Your task to perform on an android device: Open location settings Image 0: 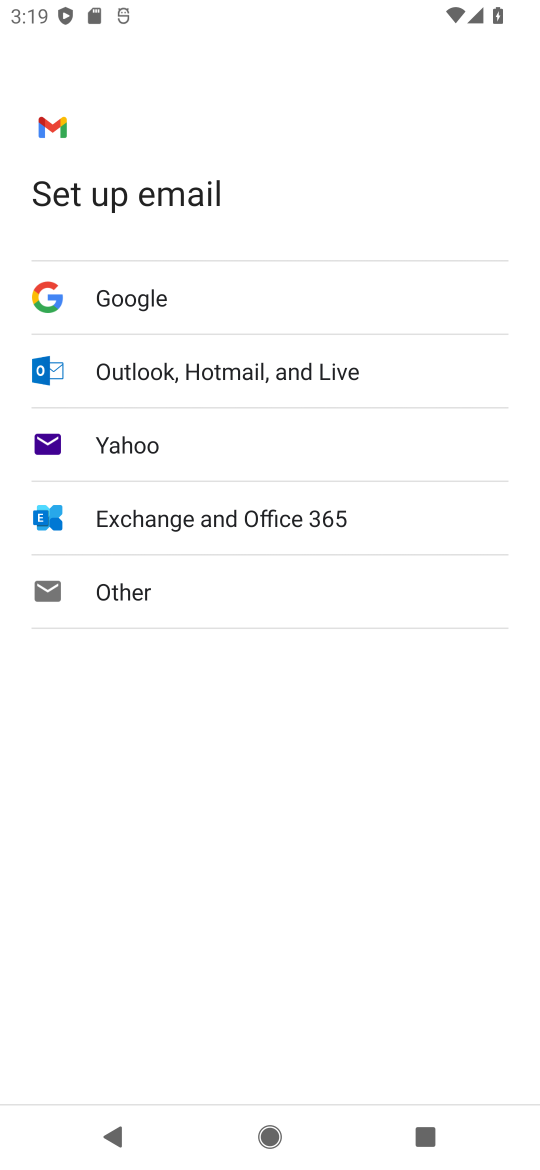
Step 0: press home button
Your task to perform on an android device: Open location settings Image 1: 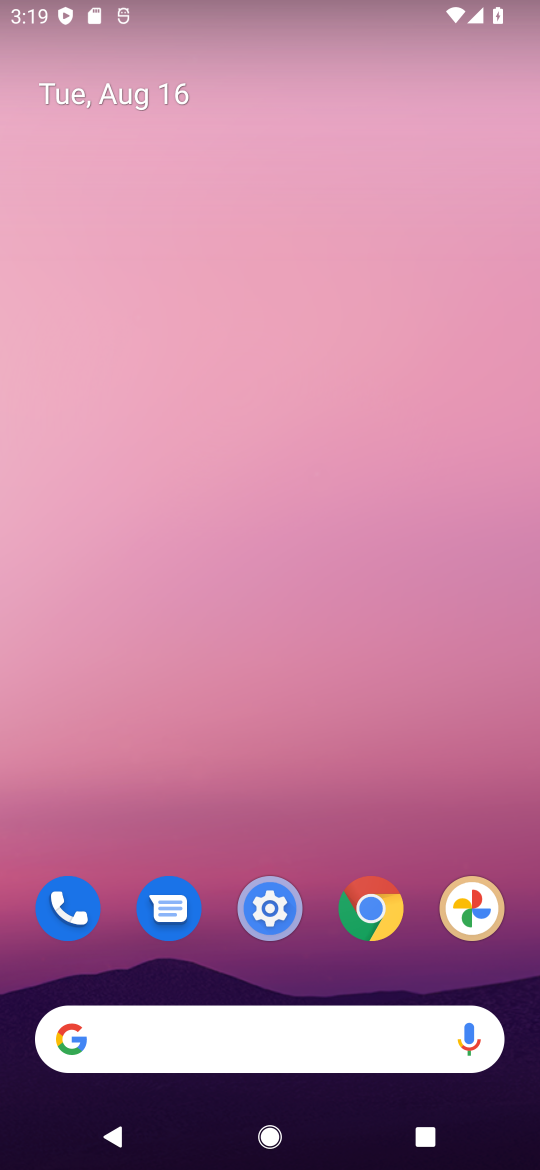
Step 1: drag from (309, 864) to (311, 195)
Your task to perform on an android device: Open location settings Image 2: 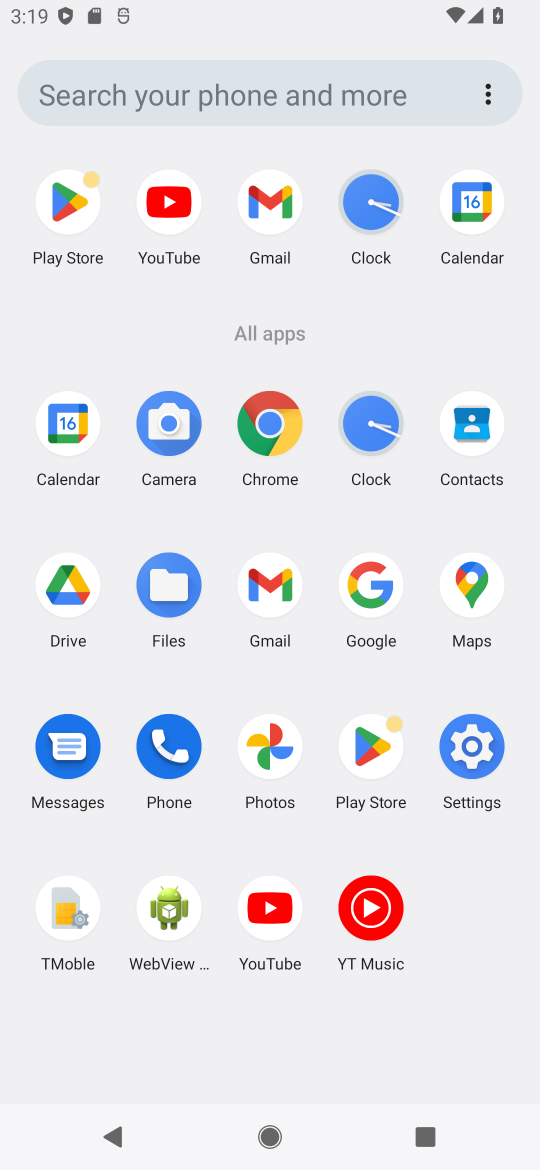
Step 2: click (467, 740)
Your task to perform on an android device: Open location settings Image 3: 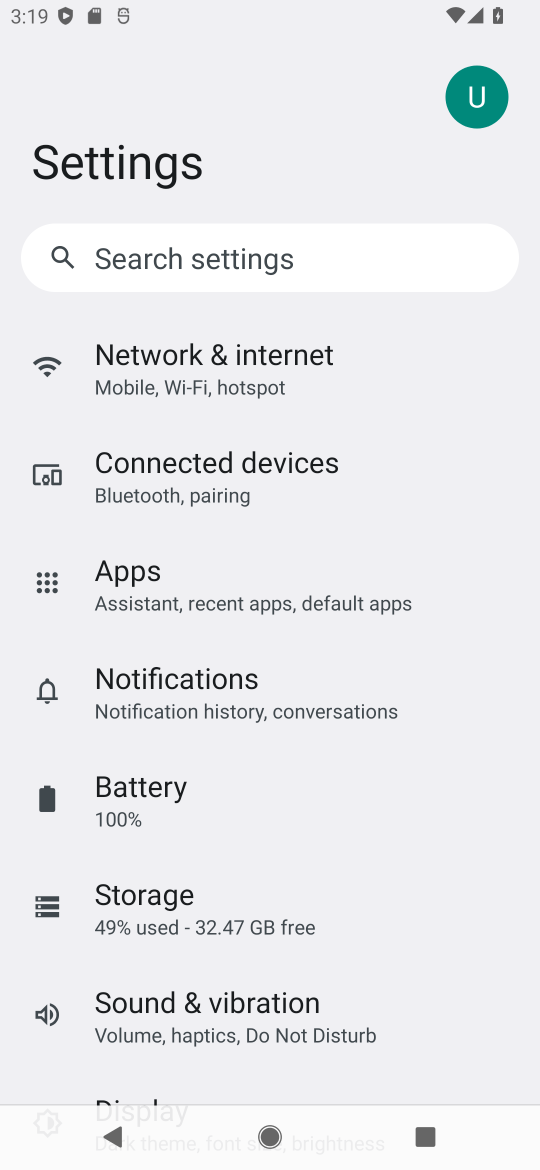
Step 3: drag from (296, 982) to (291, 173)
Your task to perform on an android device: Open location settings Image 4: 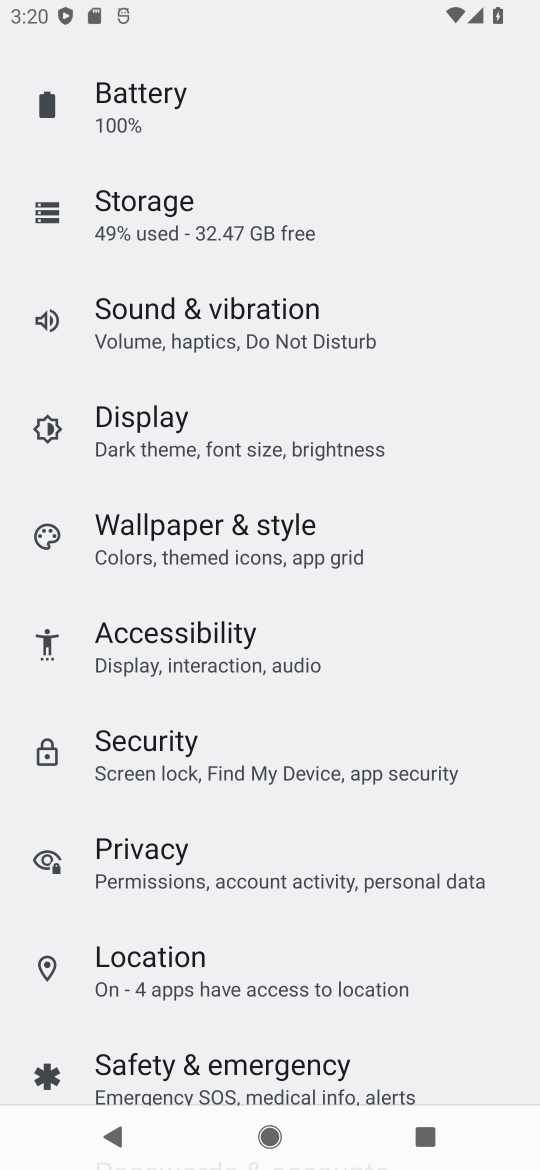
Step 4: click (227, 956)
Your task to perform on an android device: Open location settings Image 5: 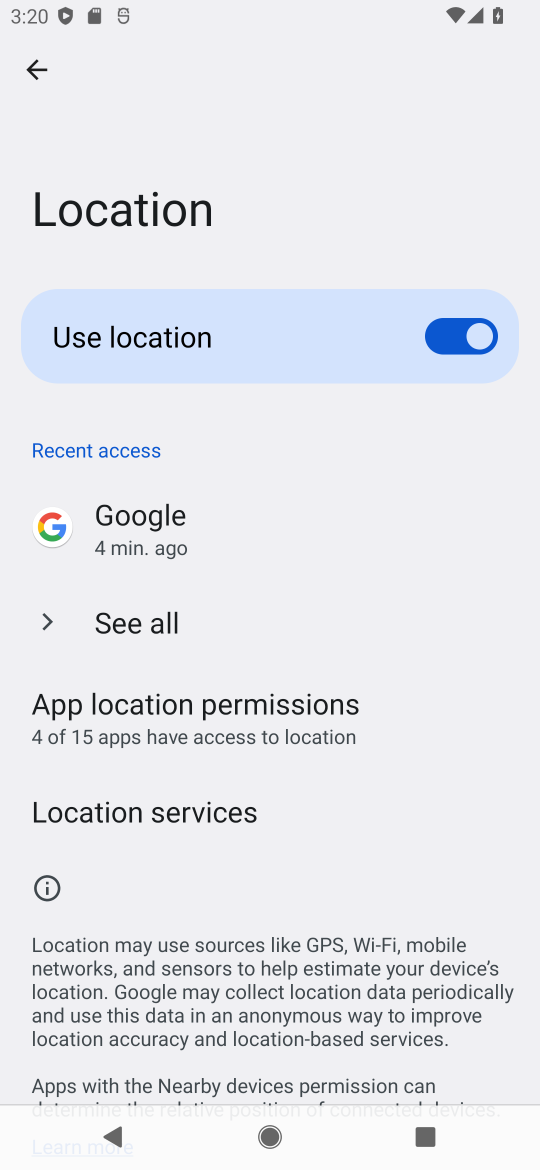
Step 5: click (112, 798)
Your task to perform on an android device: Open location settings Image 6: 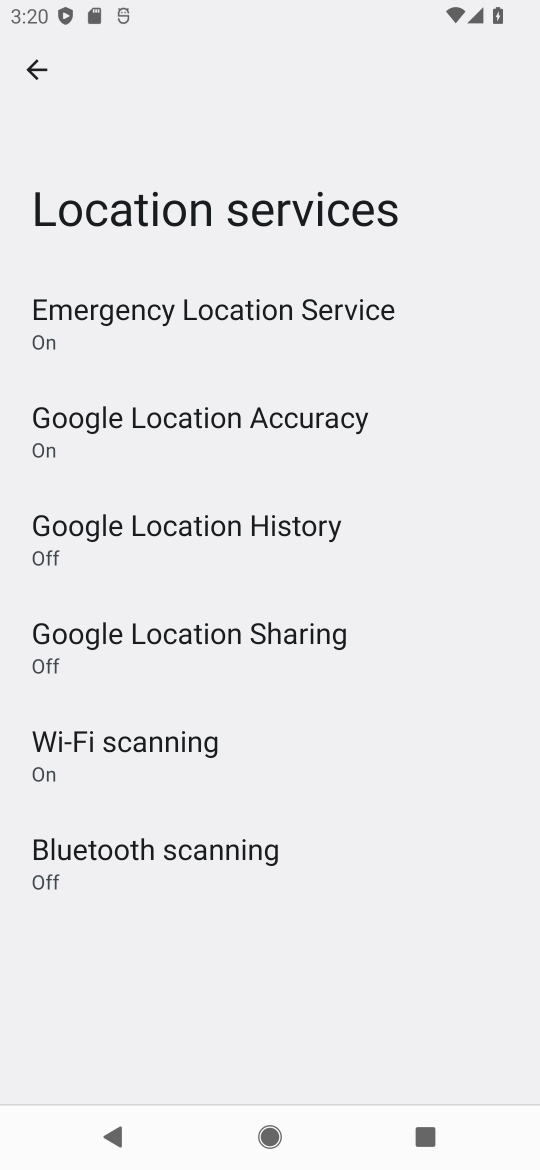
Step 6: task complete